Your task to perform on an android device: turn off airplane mode Image 0: 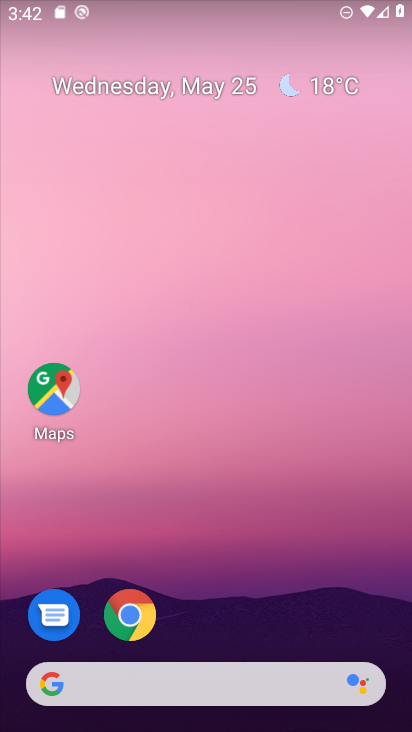
Step 0: drag from (286, 580) to (242, 36)
Your task to perform on an android device: turn off airplane mode Image 1: 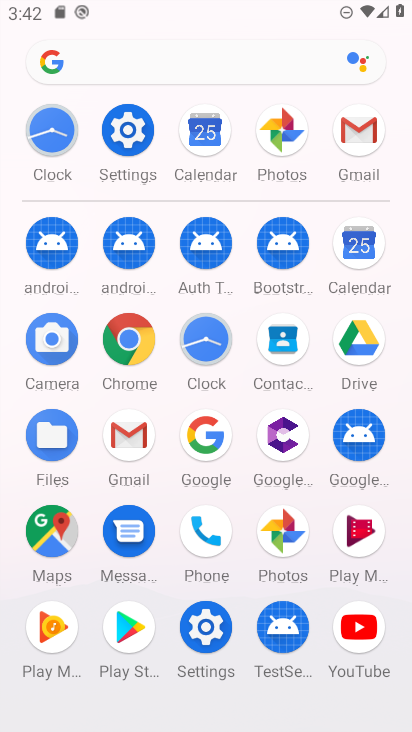
Step 1: click (139, 134)
Your task to perform on an android device: turn off airplane mode Image 2: 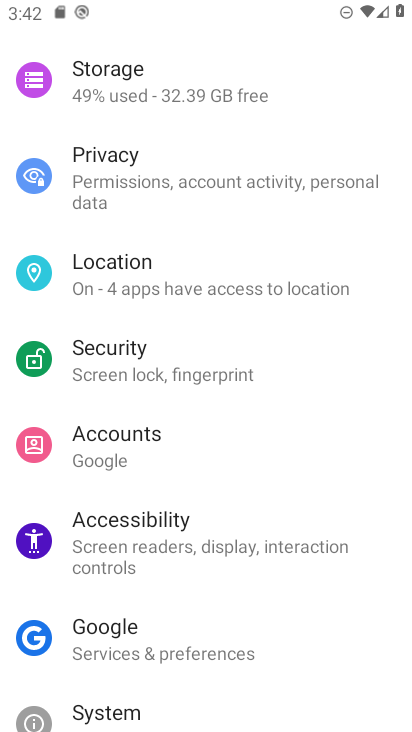
Step 2: drag from (200, 233) to (229, 682)
Your task to perform on an android device: turn off airplane mode Image 3: 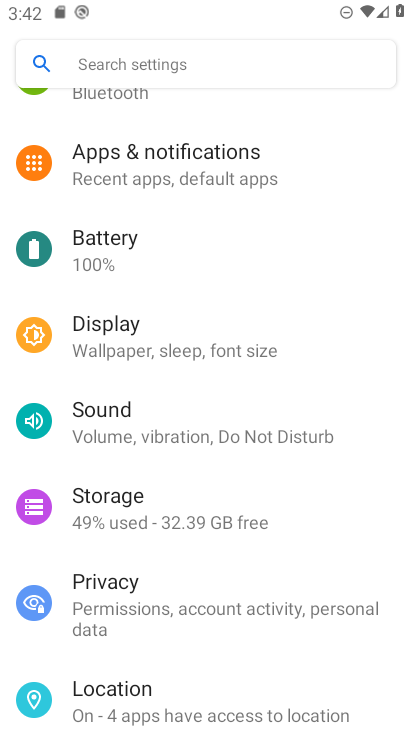
Step 3: drag from (229, 248) to (235, 621)
Your task to perform on an android device: turn off airplane mode Image 4: 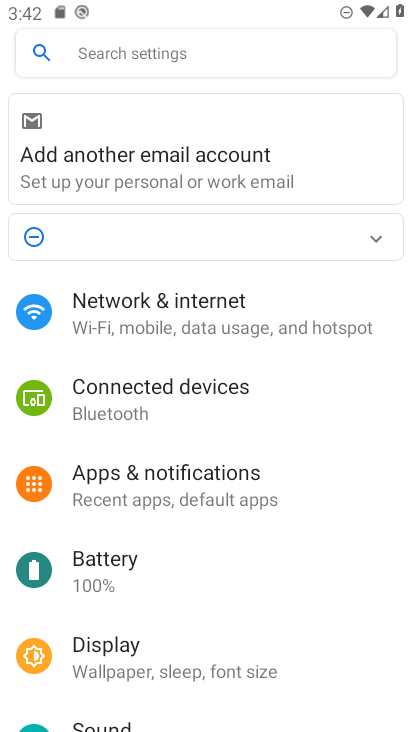
Step 4: click (226, 319)
Your task to perform on an android device: turn off airplane mode Image 5: 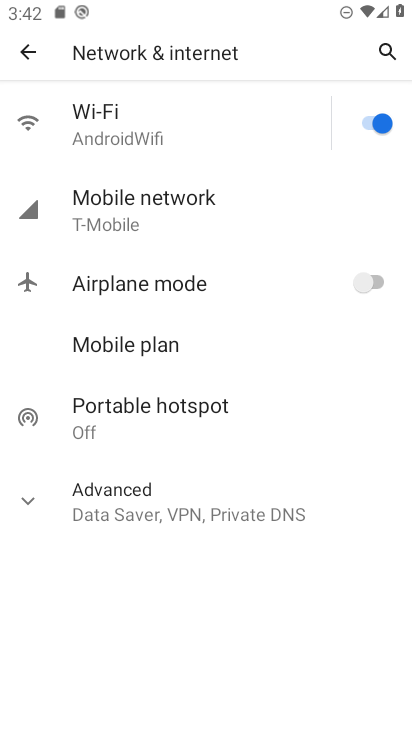
Step 5: task complete